Your task to perform on an android device: move a message to another label in the gmail app Image 0: 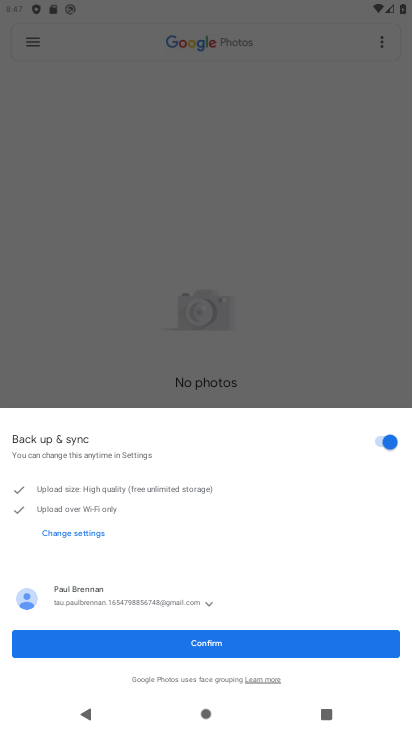
Step 0: press home button
Your task to perform on an android device: move a message to another label in the gmail app Image 1: 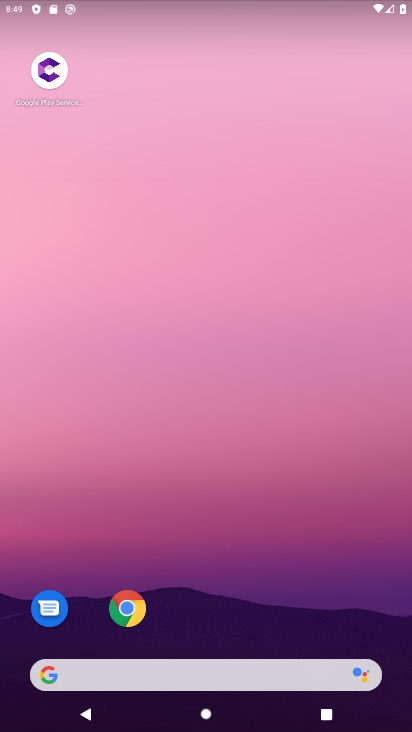
Step 1: drag from (281, 682) to (195, 91)
Your task to perform on an android device: move a message to another label in the gmail app Image 2: 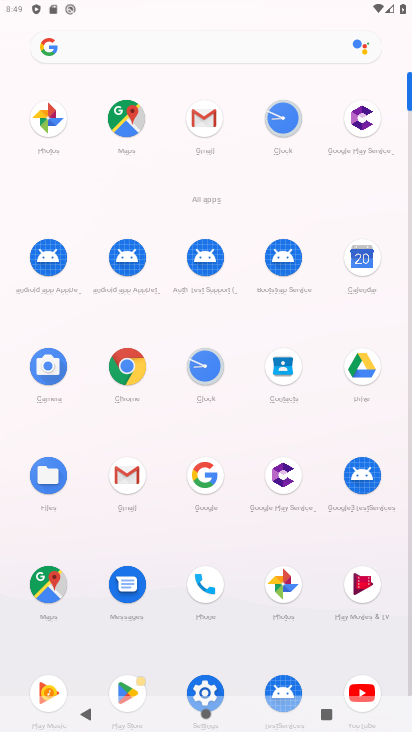
Step 2: click (200, 119)
Your task to perform on an android device: move a message to another label in the gmail app Image 3: 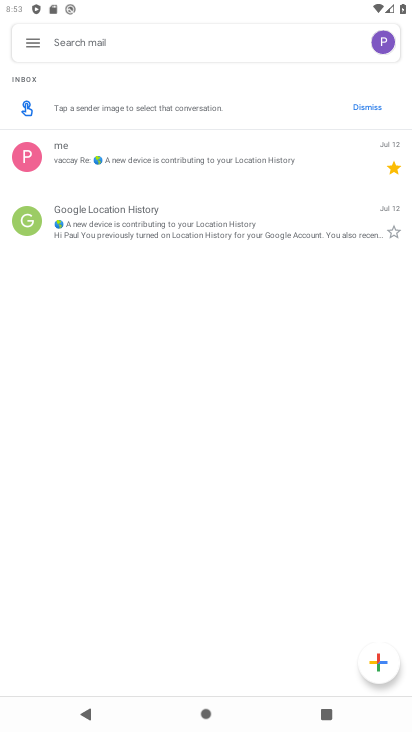
Step 3: press home button
Your task to perform on an android device: move a message to another label in the gmail app Image 4: 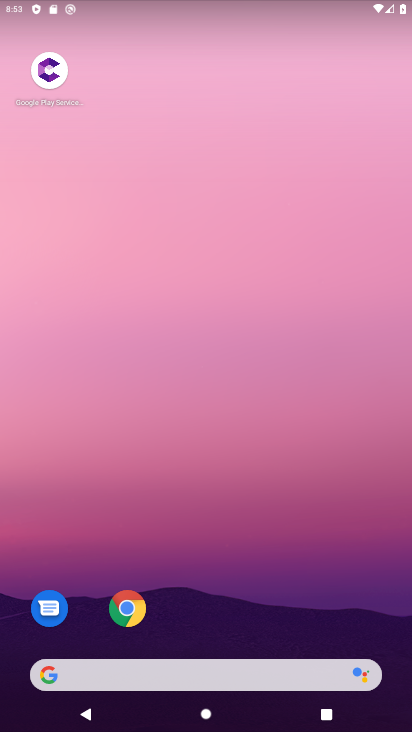
Step 4: drag from (216, 567) to (121, 103)
Your task to perform on an android device: move a message to another label in the gmail app Image 5: 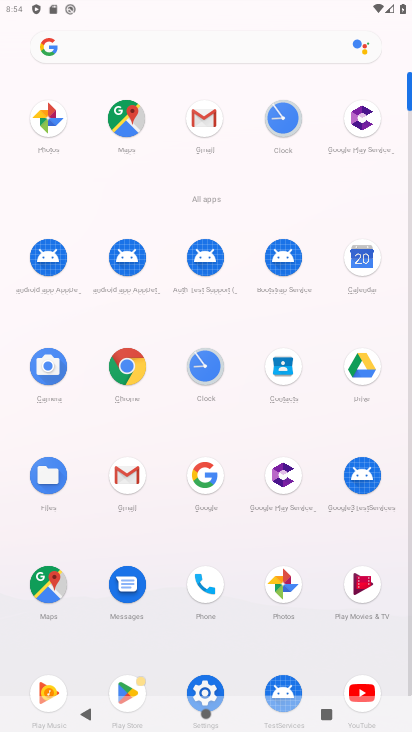
Step 5: click (133, 474)
Your task to perform on an android device: move a message to another label in the gmail app Image 6: 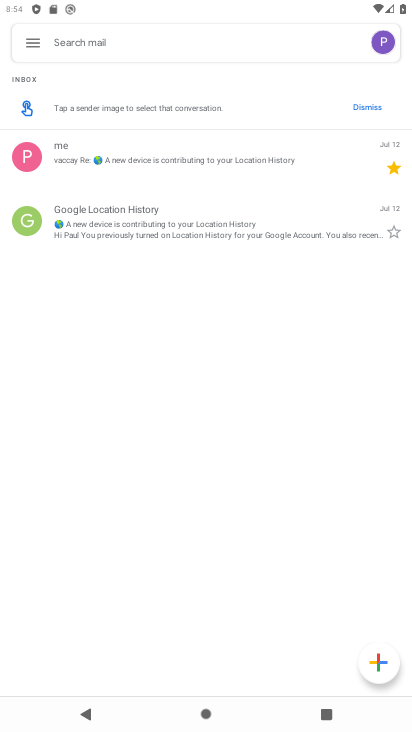
Step 6: click (201, 220)
Your task to perform on an android device: move a message to another label in the gmail app Image 7: 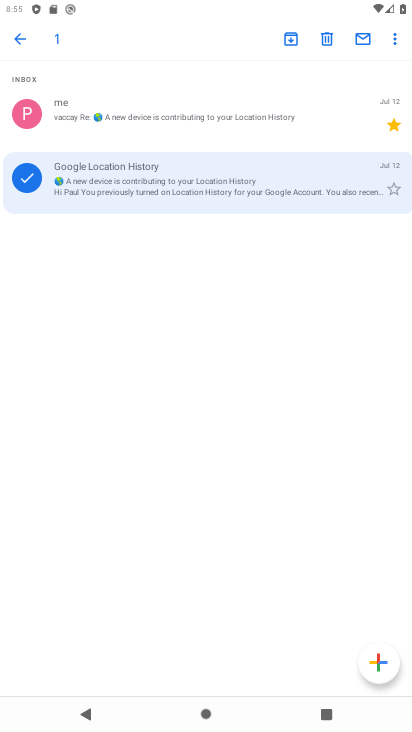
Step 7: click (397, 39)
Your task to perform on an android device: move a message to another label in the gmail app Image 8: 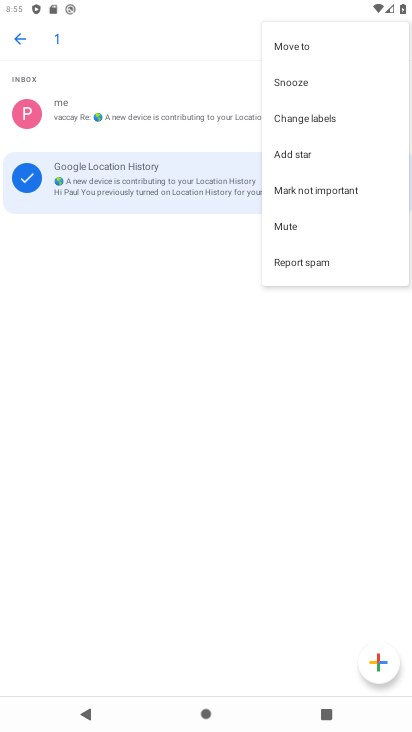
Step 8: click (331, 110)
Your task to perform on an android device: move a message to another label in the gmail app Image 9: 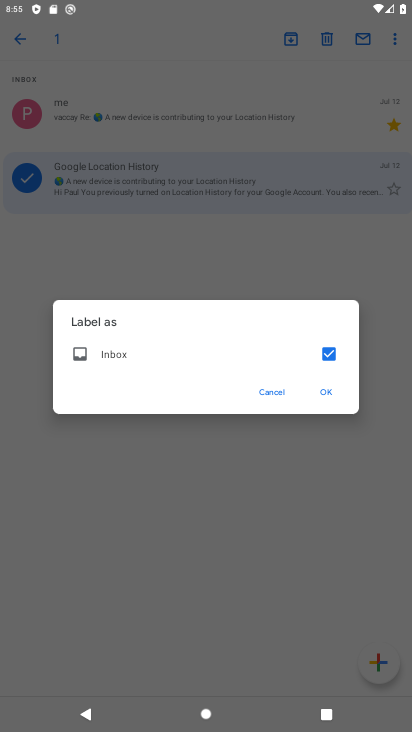
Step 9: click (327, 393)
Your task to perform on an android device: move a message to another label in the gmail app Image 10: 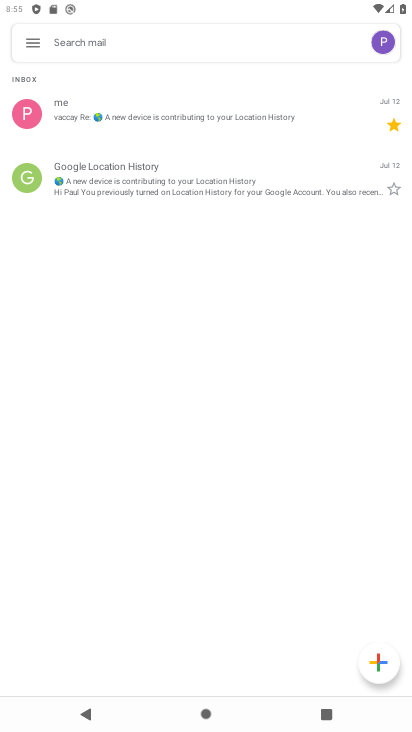
Step 10: task complete